Your task to perform on an android device: Open Reddit.com Image 0: 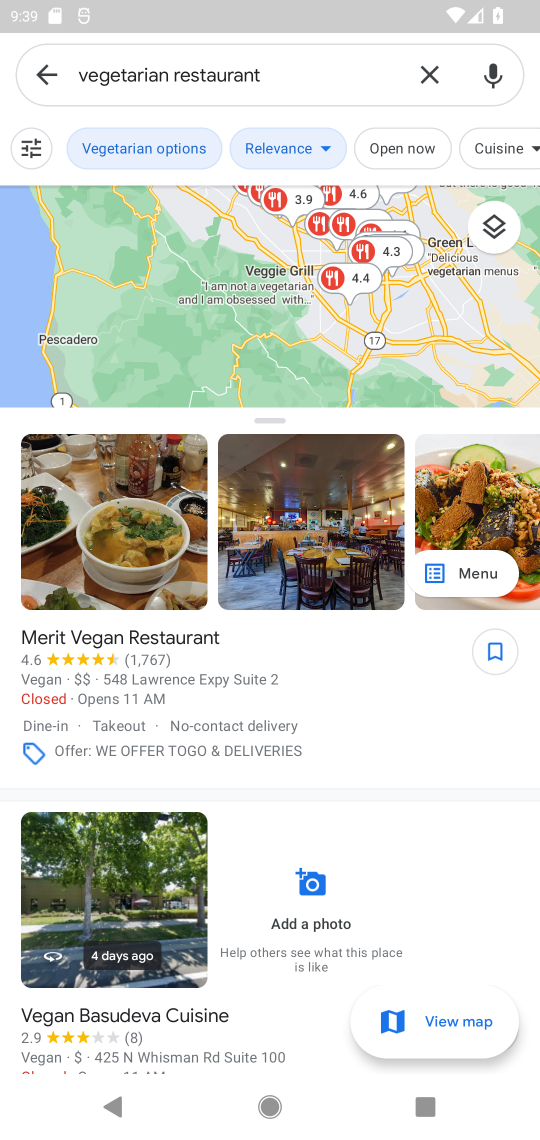
Step 0: press home button
Your task to perform on an android device: Open Reddit.com Image 1: 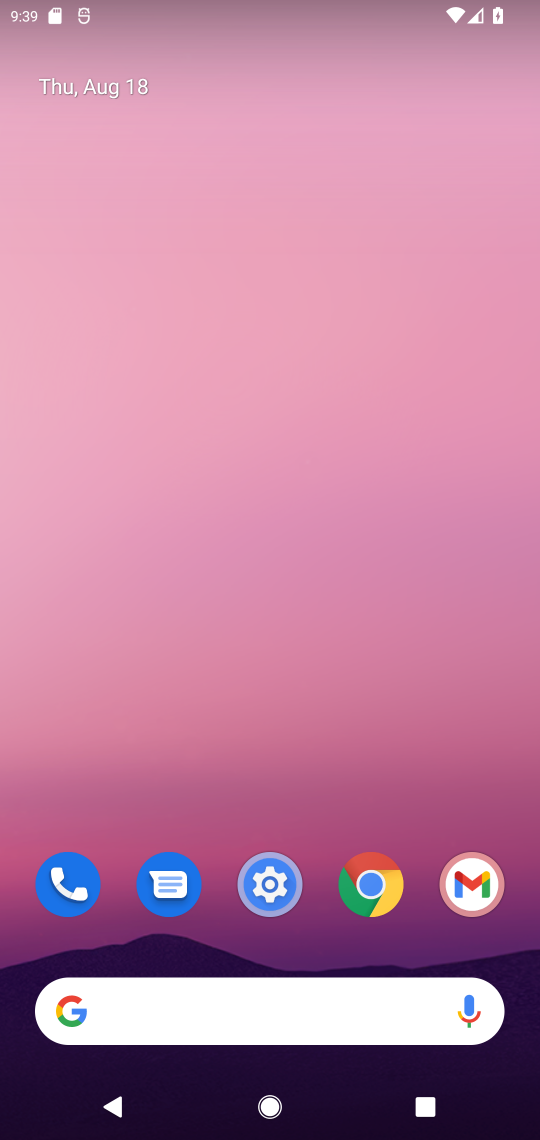
Step 1: click (278, 1021)
Your task to perform on an android device: Open Reddit.com Image 2: 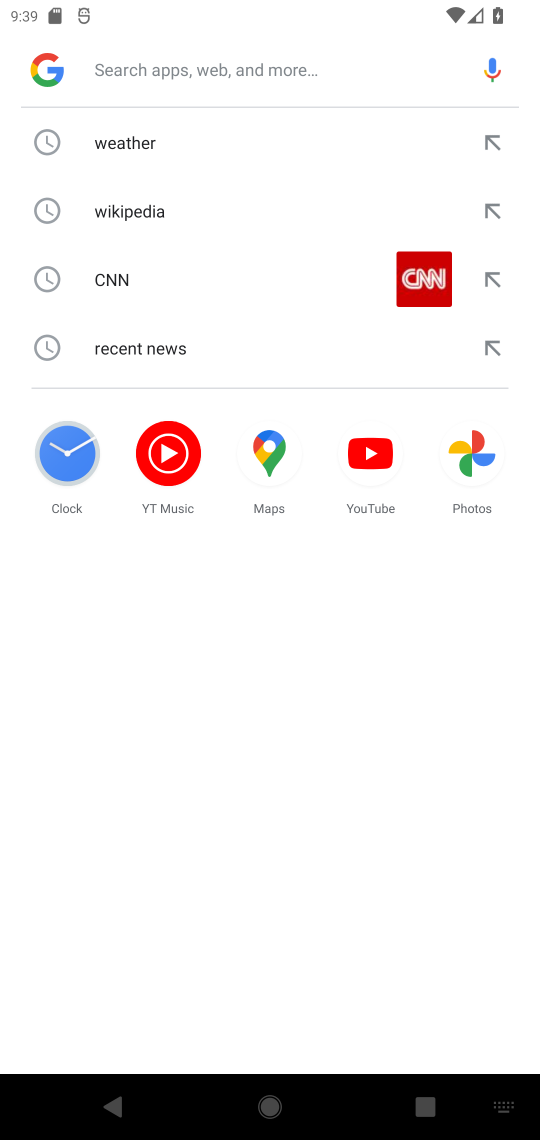
Step 2: type "reddit"
Your task to perform on an android device: Open Reddit.com Image 3: 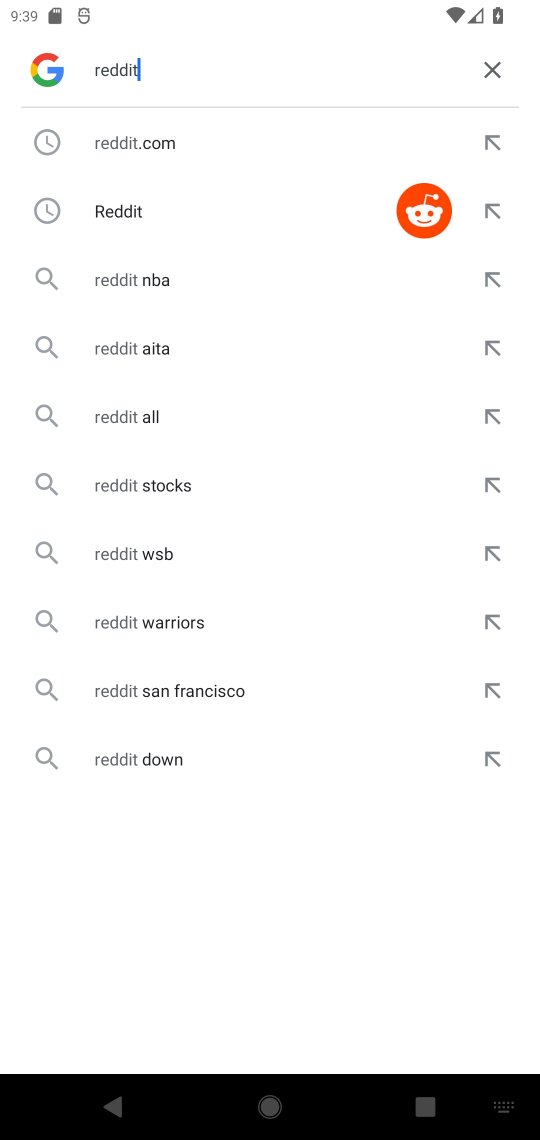
Step 3: click (217, 223)
Your task to perform on an android device: Open Reddit.com Image 4: 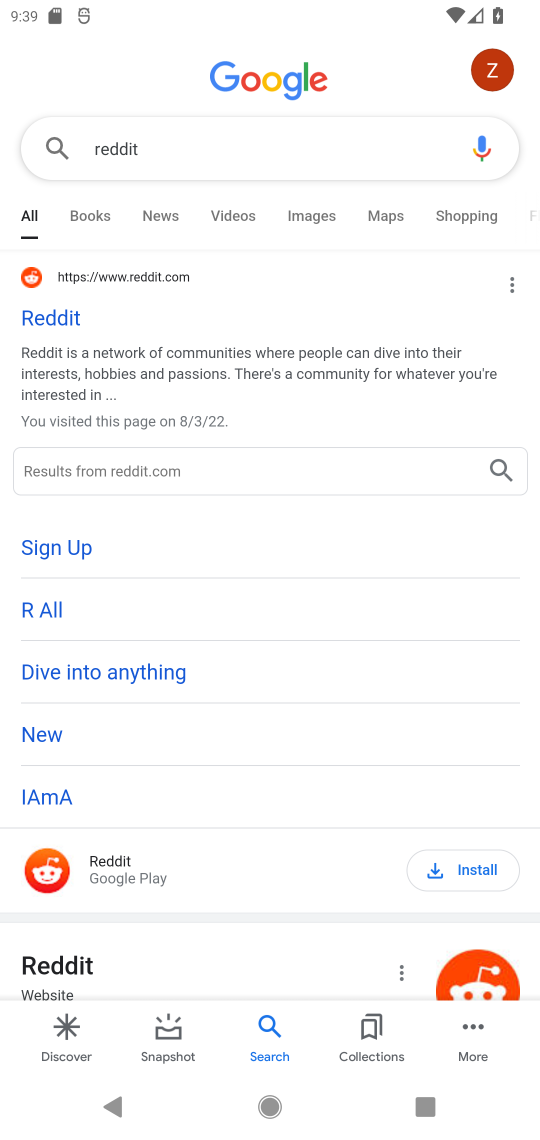
Step 4: click (53, 311)
Your task to perform on an android device: Open Reddit.com Image 5: 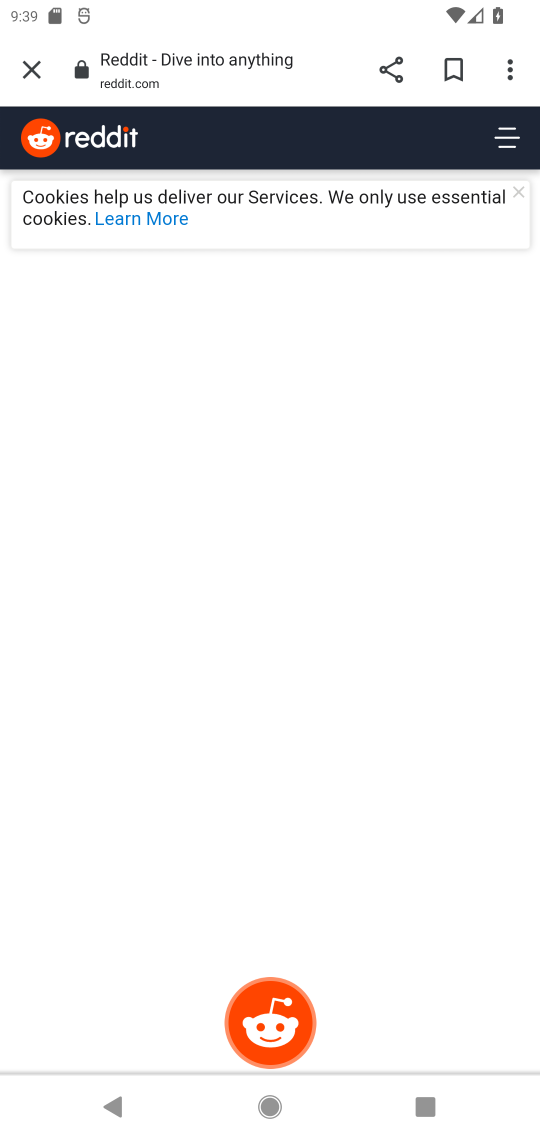
Step 5: task complete